Your task to perform on an android device: visit the assistant section in the google photos Image 0: 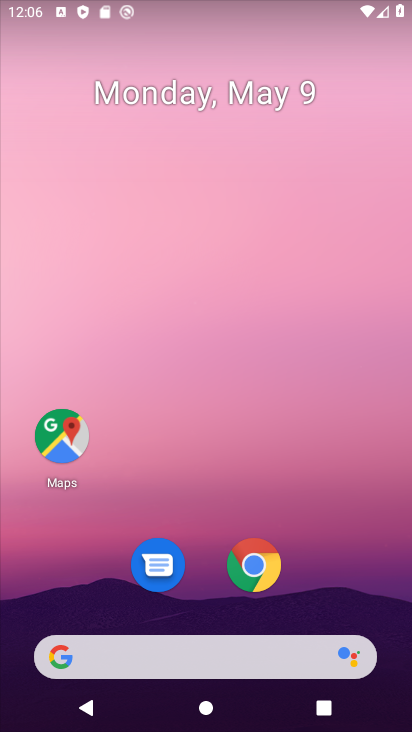
Step 0: drag from (213, 600) to (148, 5)
Your task to perform on an android device: visit the assistant section in the google photos Image 1: 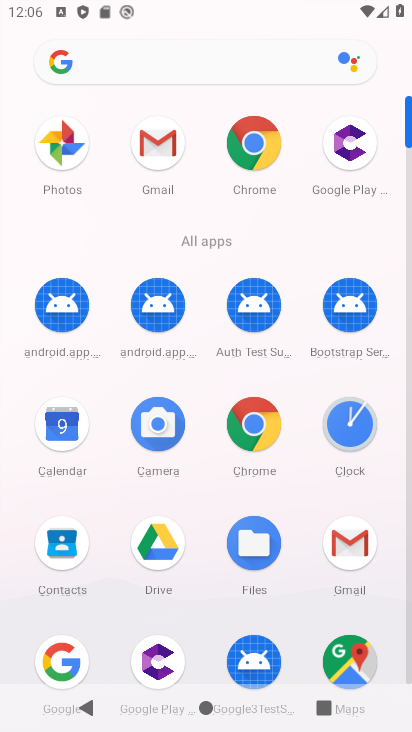
Step 1: click (124, 47)
Your task to perform on an android device: visit the assistant section in the google photos Image 2: 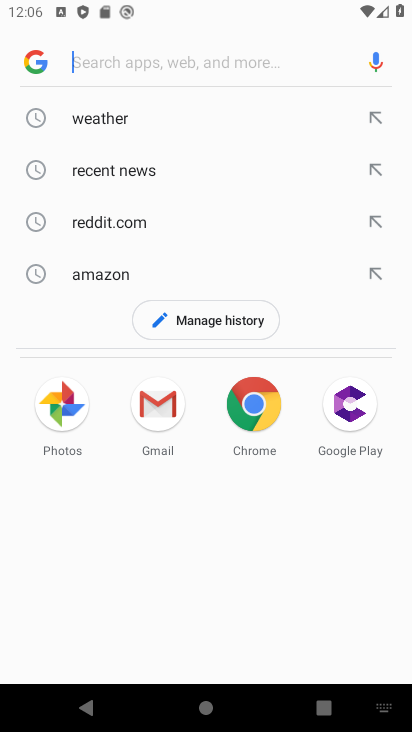
Step 2: press home button
Your task to perform on an android device: visit the assistant section in the google photos Image 3: 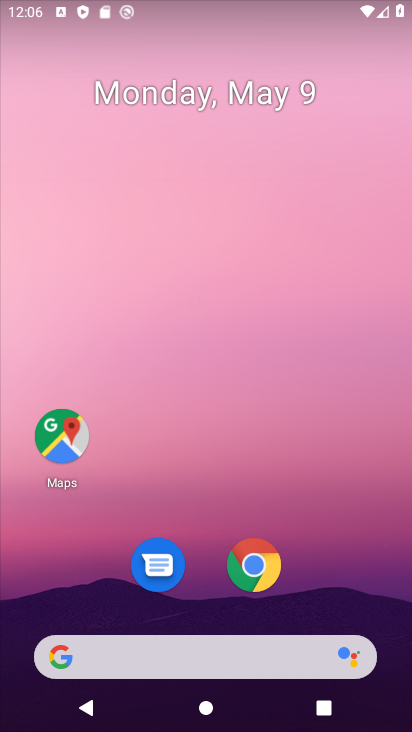
Step 3: drag from (221, 628) to (211, 153)
Your task to perform on an android device: visit the assistant section in the google photos Image 4: 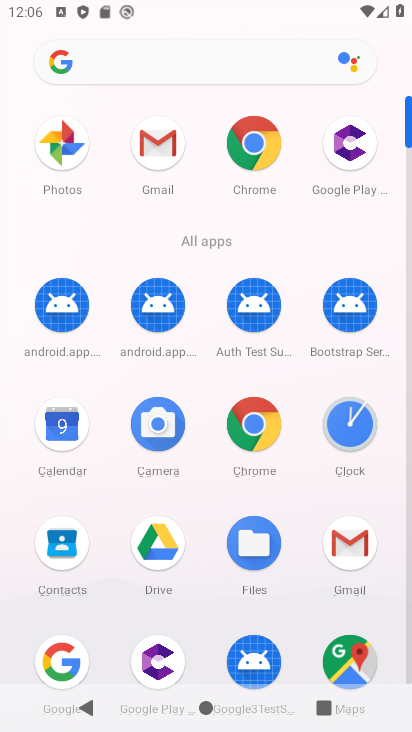
Step 4: drag from (285, 561) to (296, 260)
Your task to perform on an android device: visit the assistant section in the google photos Image 5: 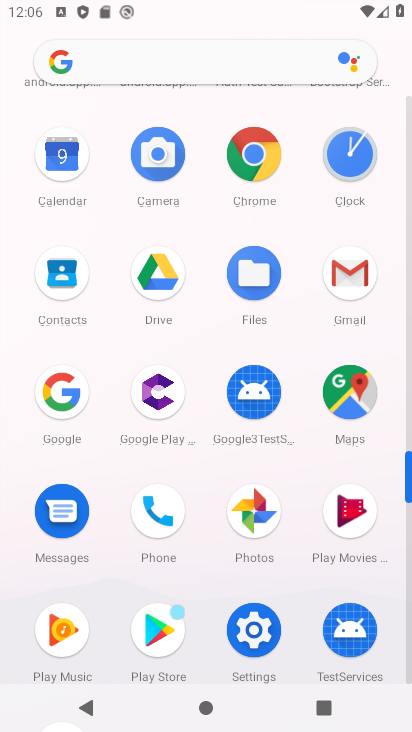
Step 5: click (261, 528)
Your task to perform on an android device: visit the assistant section in the google photos Image 6: 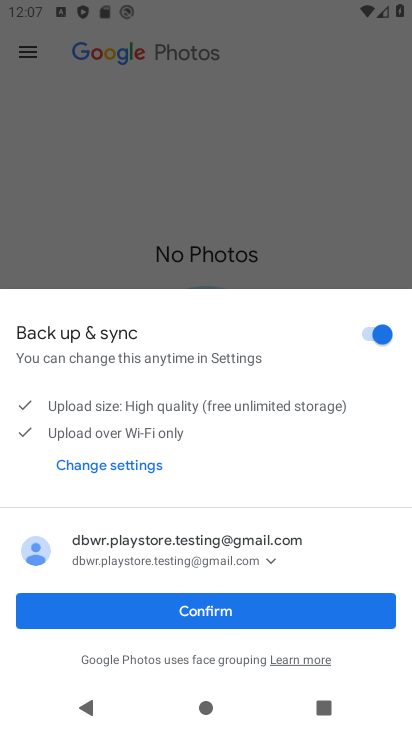
Step 6: click (239, 602)
Your task to perform on an android device: visit the assistant section in the google photos Image 7: 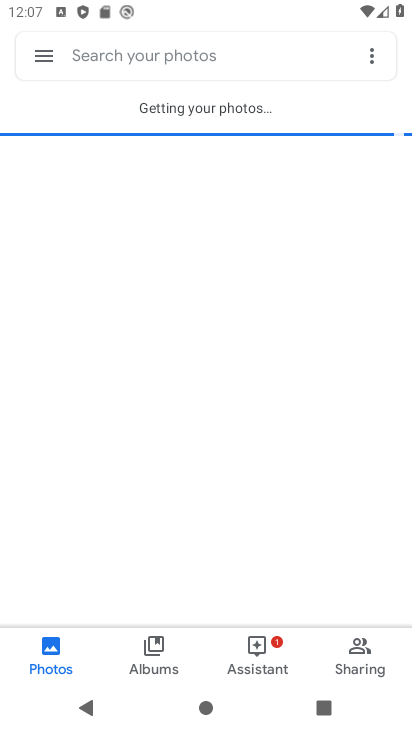
Step 7: click (42, 61)
Your task to perform on an android device: visit the assistant section in the google photos Image 8: 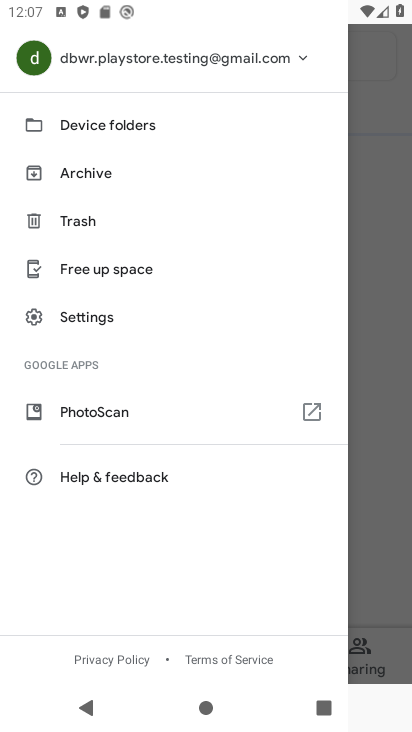
Step 8: click (376, 313)
Your task to perform on an android device: visit the assistant section in the google photos Image 9: 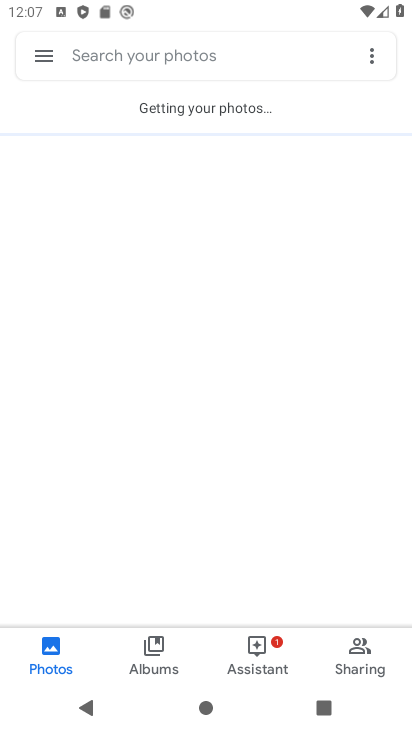
Step 9: click (257, 636)
Your task to perform on an android device: visit the assistant section in the google photos Image 10: 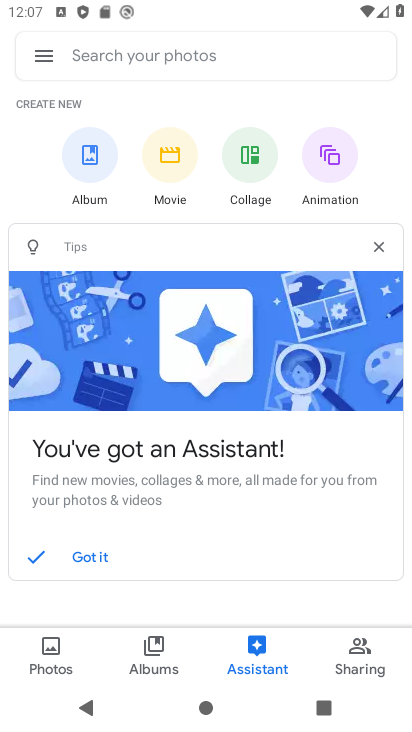
Step 10: task complete